Your task to perform on an android device: open wifi settings Image 0: 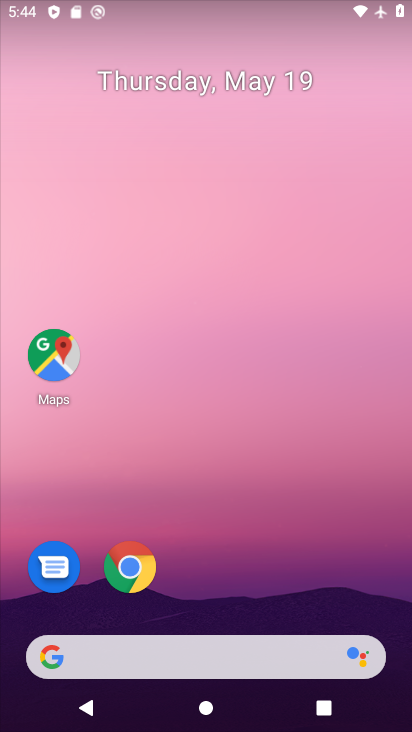
Step 0: drag from (337, 621) to (101, 142)
Your task to perform on an android device: open wifi settings Image 1: 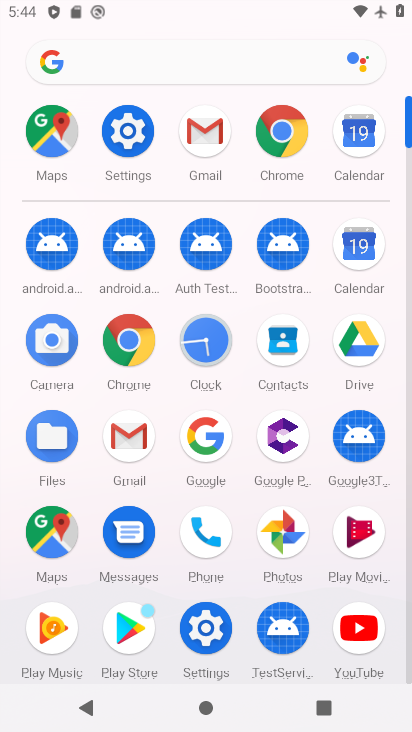
Step 1: click (125, 133)
Your task to perform on an android device: open wifi settings Image 2: 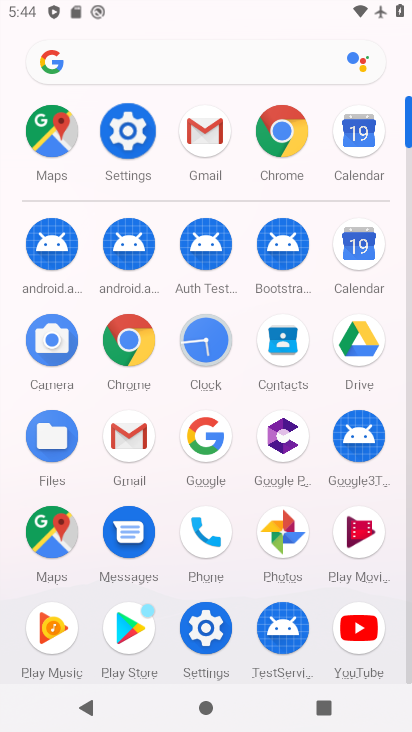
Step 2: click (126, 132)
Your task to perform on an android device: open wifi settings Image 3: 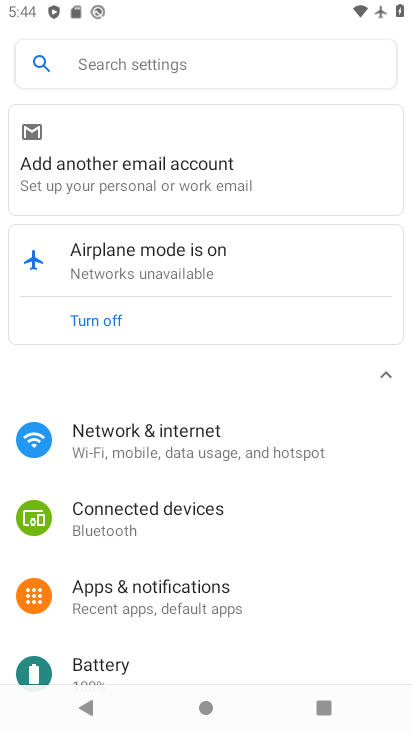
Step 3: click (145, 442)
Your task to perform on an android device: open wifi settings Image 4: 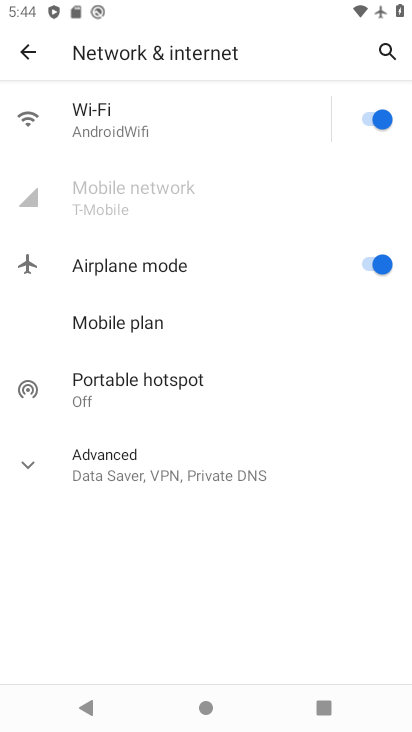
Step 4: task complete